Your task to perform on an android device: Go to network settings Image 0: 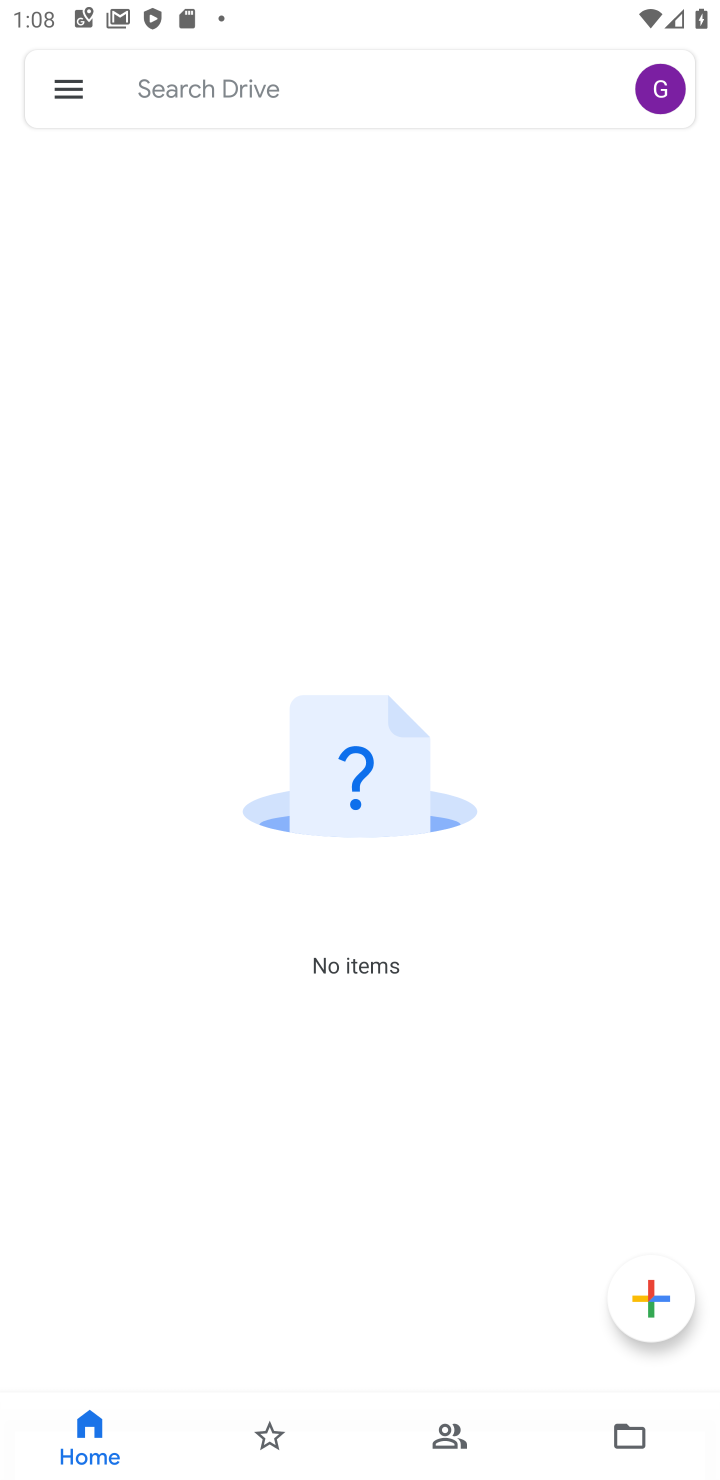
Step 0: press home button
Your task to perform on an android device: Go to network settings Image 1: 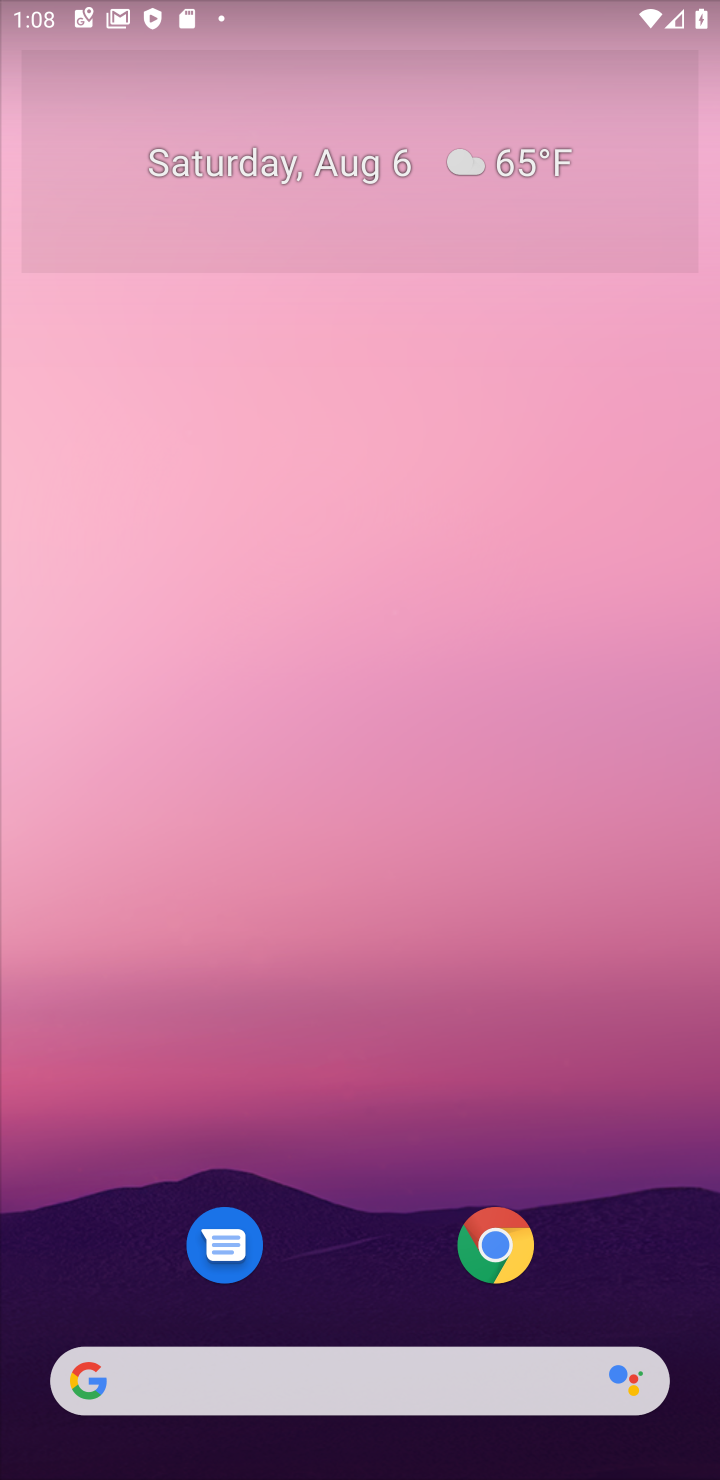
Step 1: drag from (282, 938) to (197, 234)
Your task to perform on an android device: Go to network settings Image 2: 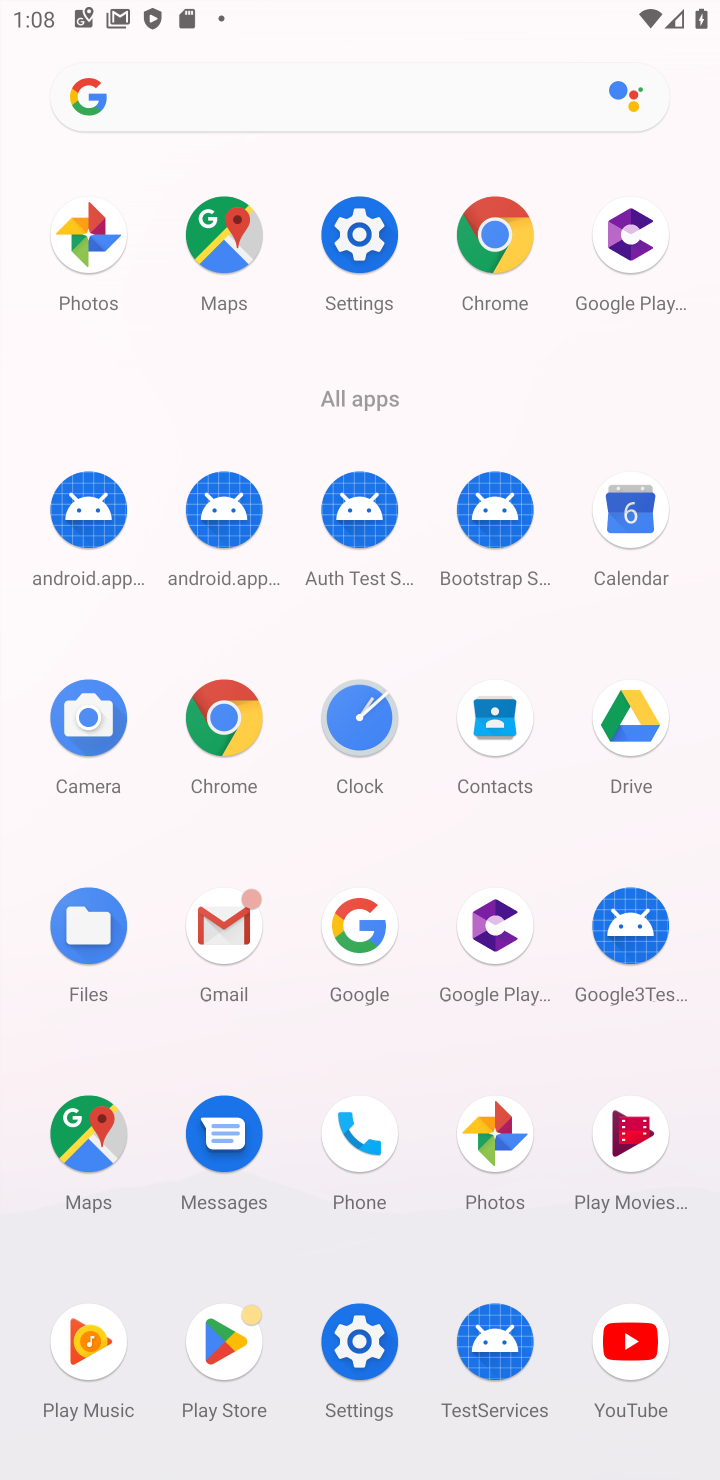
Step 2: click (363, 1324)
Your task to perform on an android device: Go to network settings Image 3: 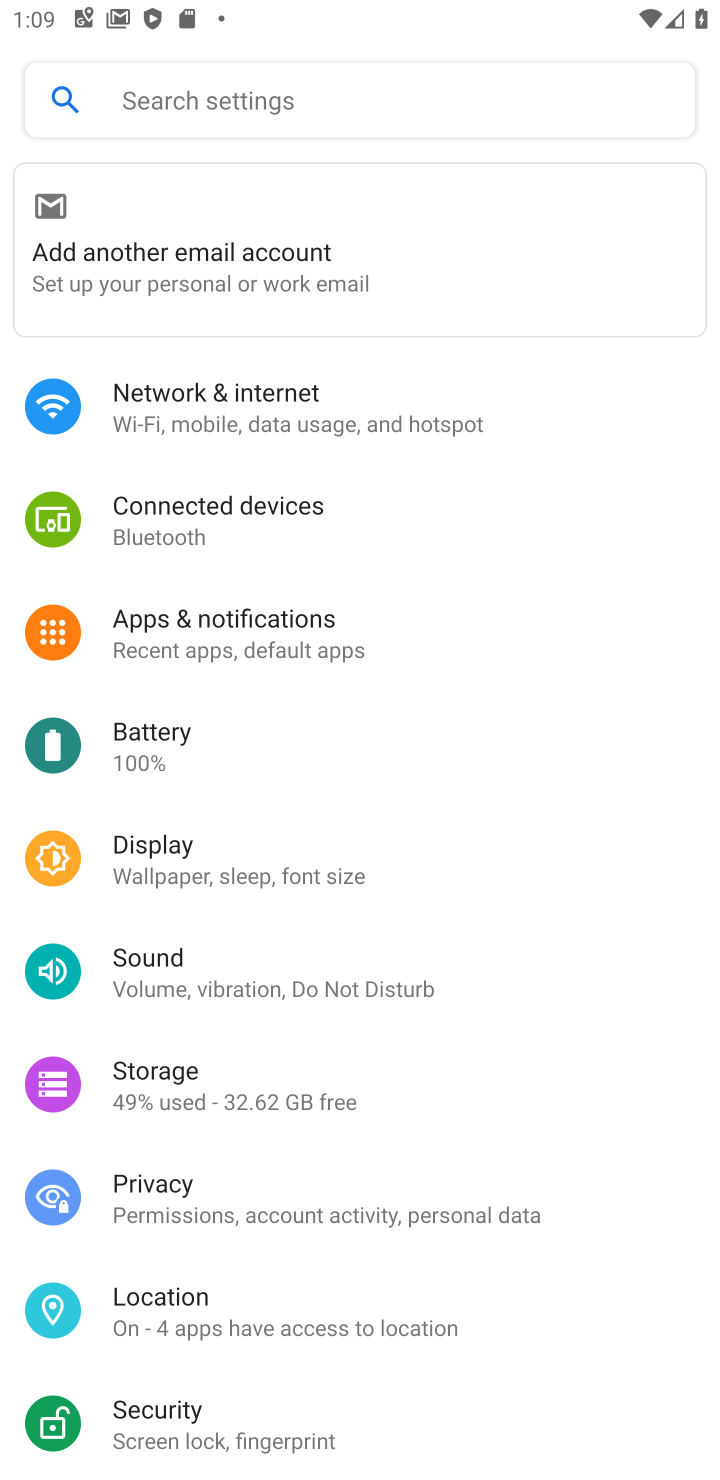
Step 3: click (336, 410)
Your task to perform on an android device: Go to network settings Image 4: 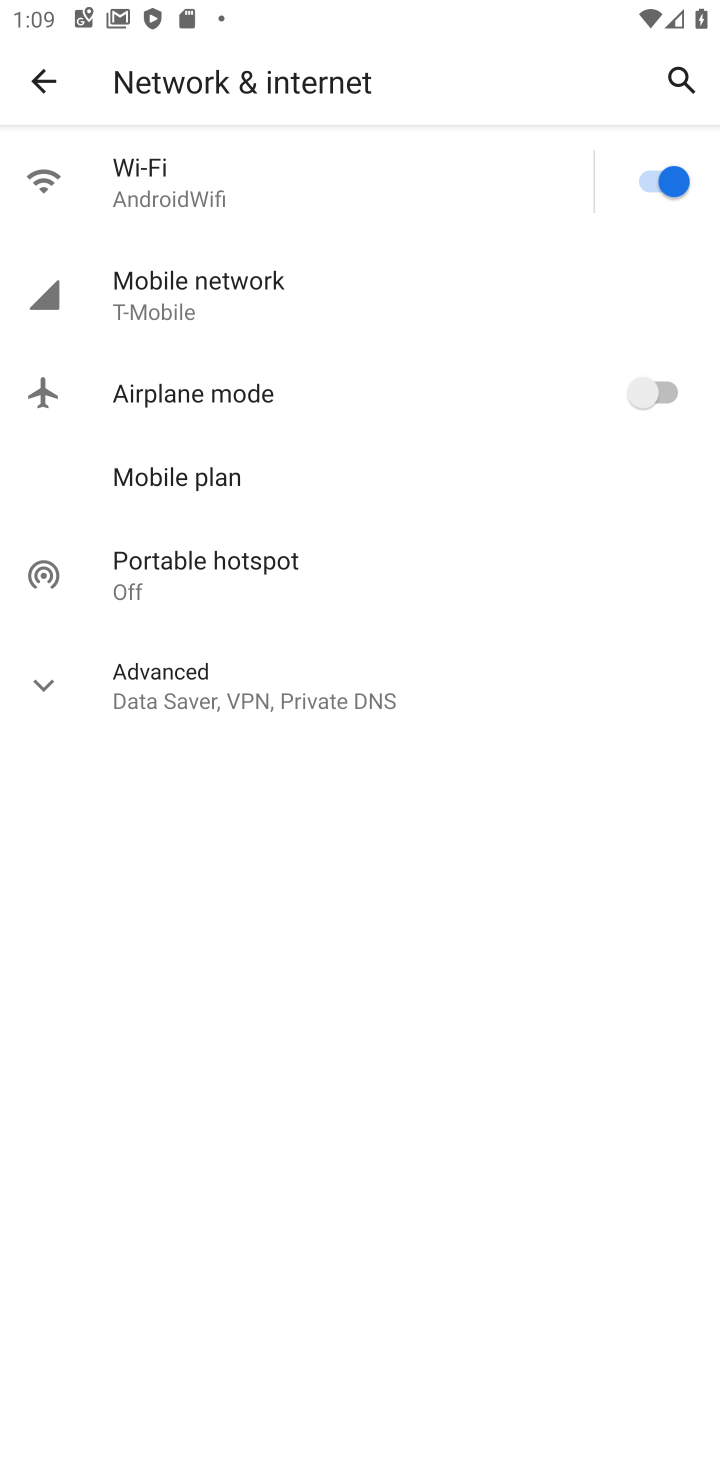
Step 4: task complete